Your task to perform on an android device: Clear the cart on amazon.com. Search for "macbook pro 13 inch" on amazon.com, select the first entry, add it to the cart, then select checkout. Image 0: 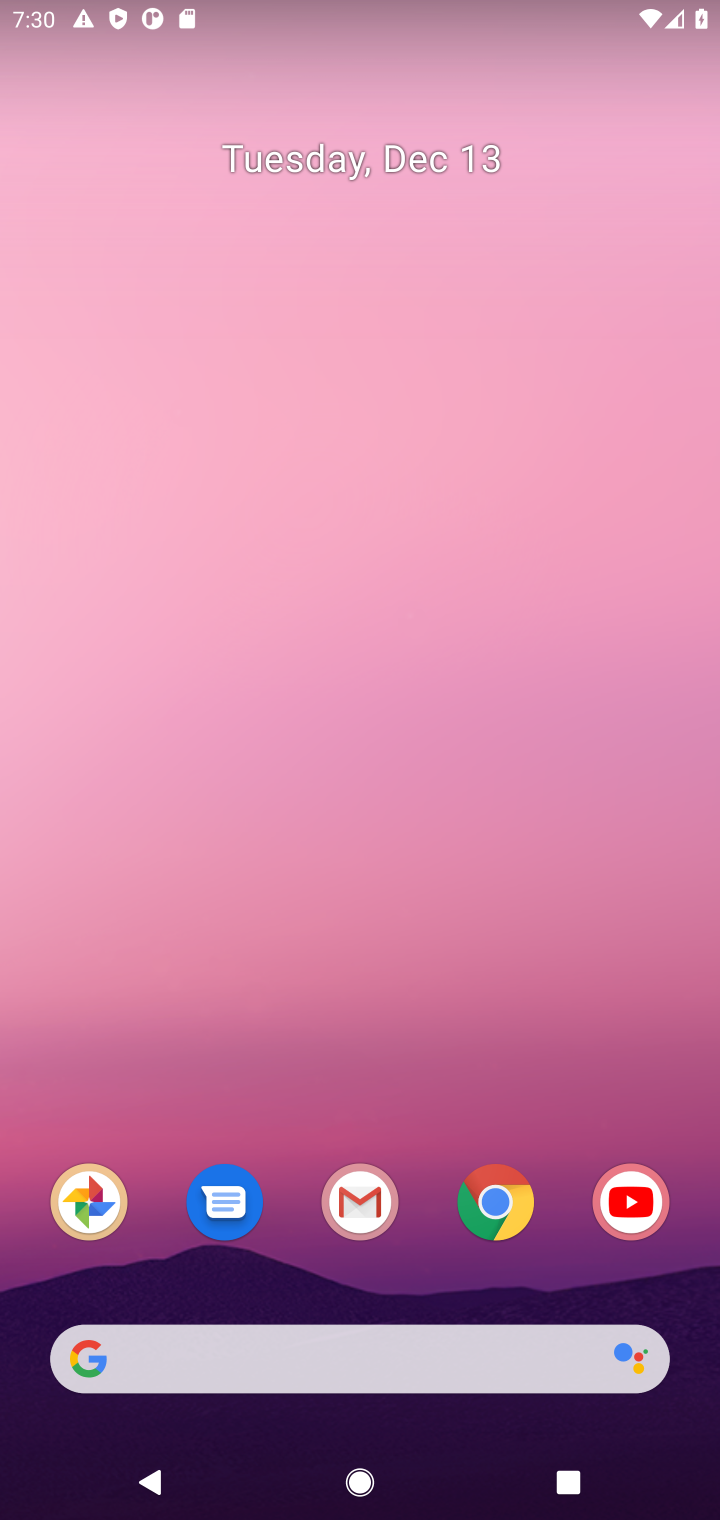
Step 0: click (501, 1217)
Your task to perform on an android device: Clear the cart on amazon.com. Search for "macbook pro 13 inch" on amazon.com, select the first entry, add it to the cart, then select checkout. Image 1: 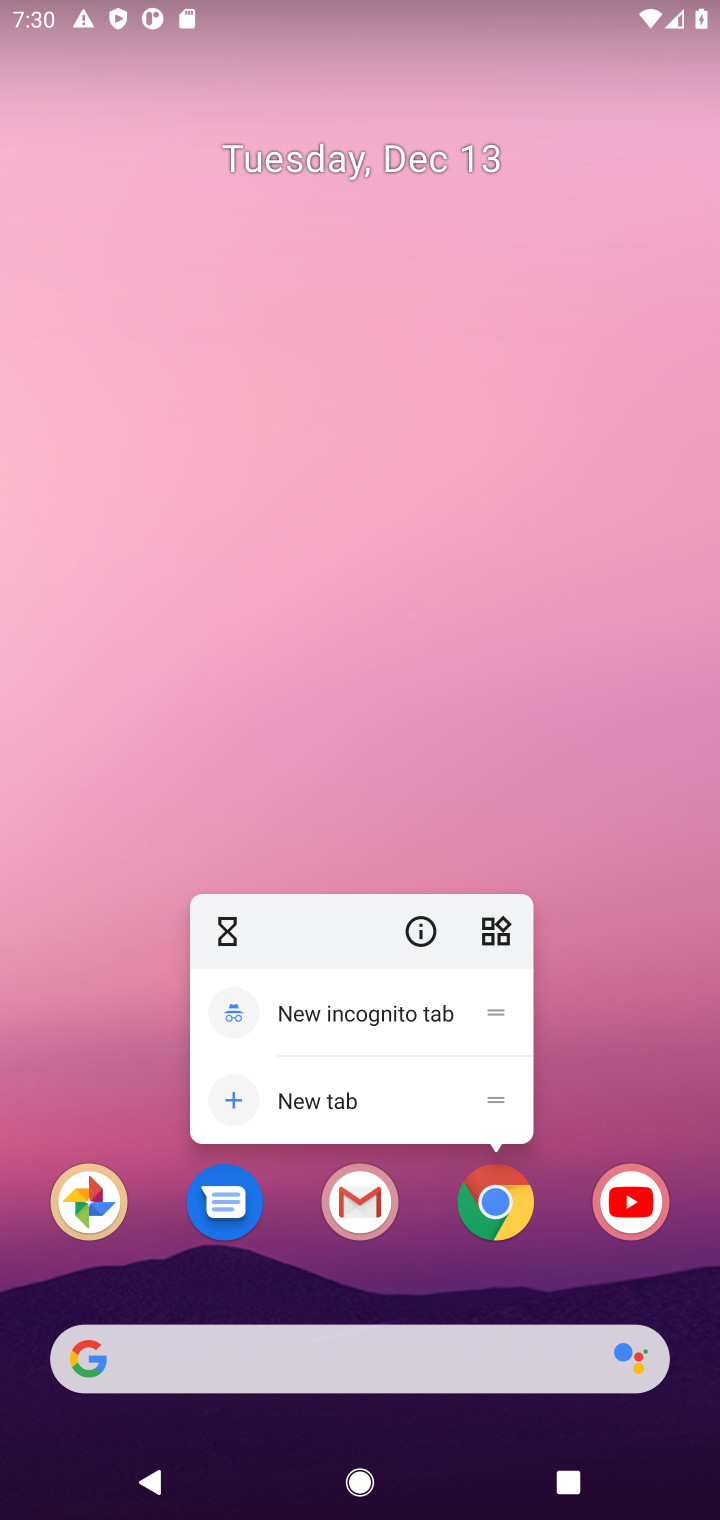
Step 1: click (497, 1200)
Your task to perform on an android device: Clear the cart on amazon.com. Search for "macbook pro 13 inch" on amazon.com, select the first entry, add it to the cart, then select checkout. Image 2: 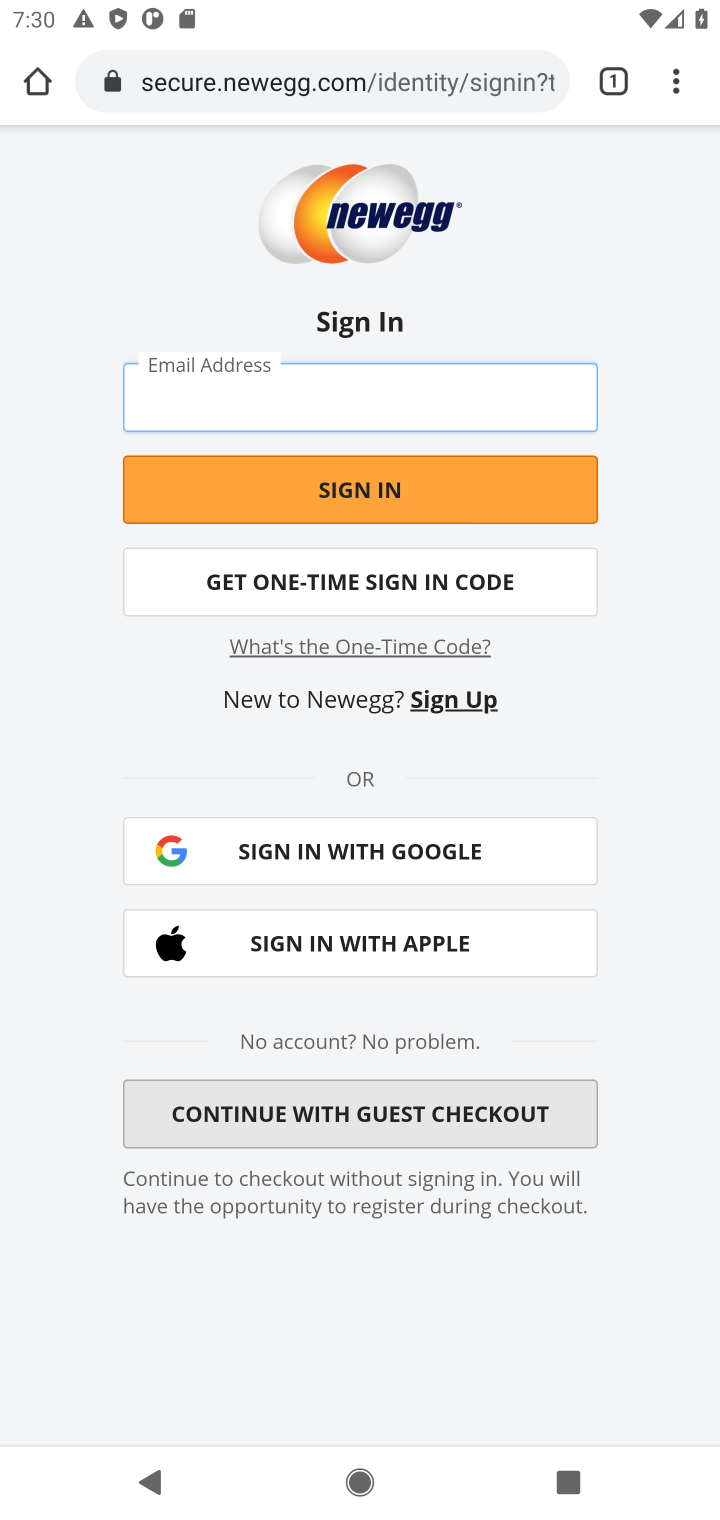
Step 2: click (288, 82)
Your task to perform on an android device: Clear the cart on amazon.com. Search for "macbook pro 13 inch" on amazon.com, select the first entry, add it to the cart, then select checkout. Image 3: 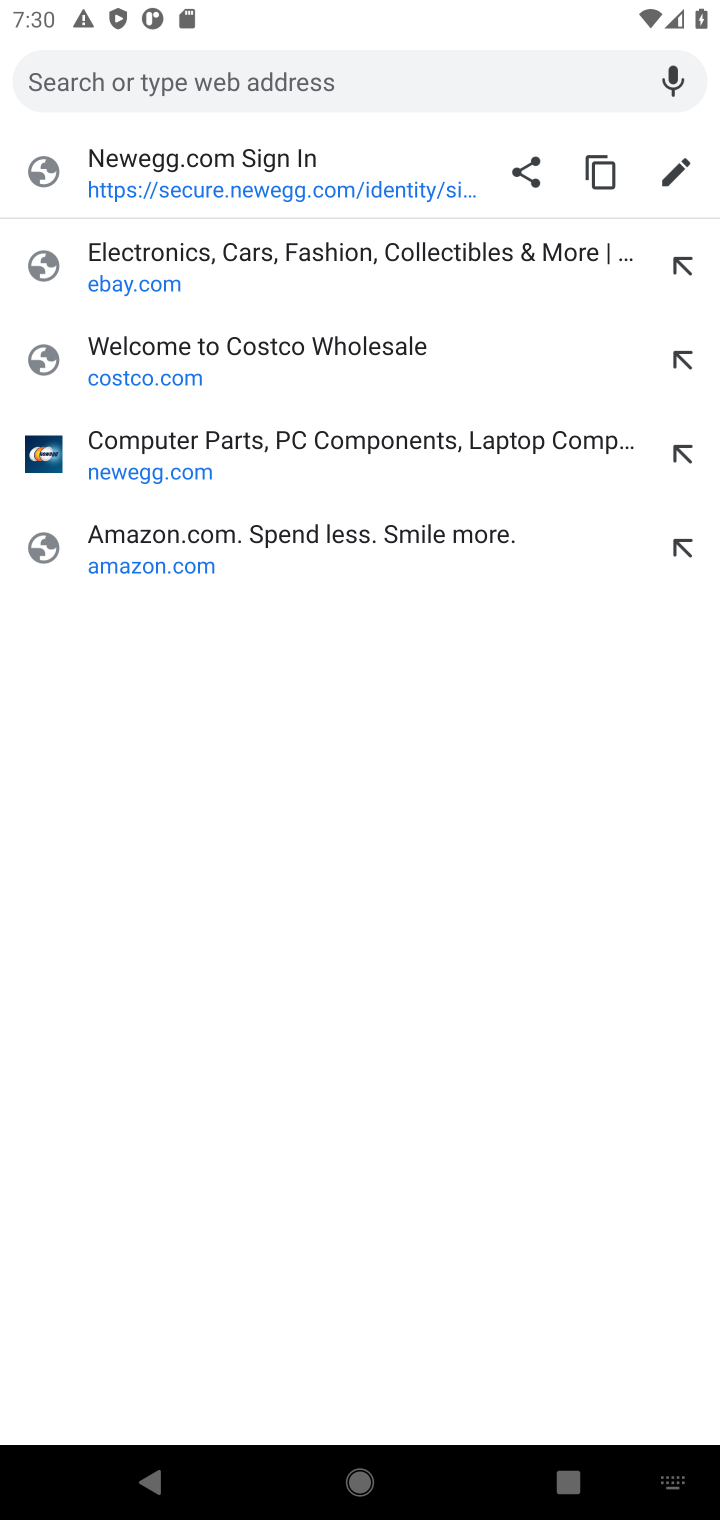
Step 3: click (122, 547)
Your task to perform on an android device: Clear the cart on amazon.com. Search for "macbook pro 13 inch" on amazon.com, select the first entry, add it to the cart, then select checkout. Image 4: 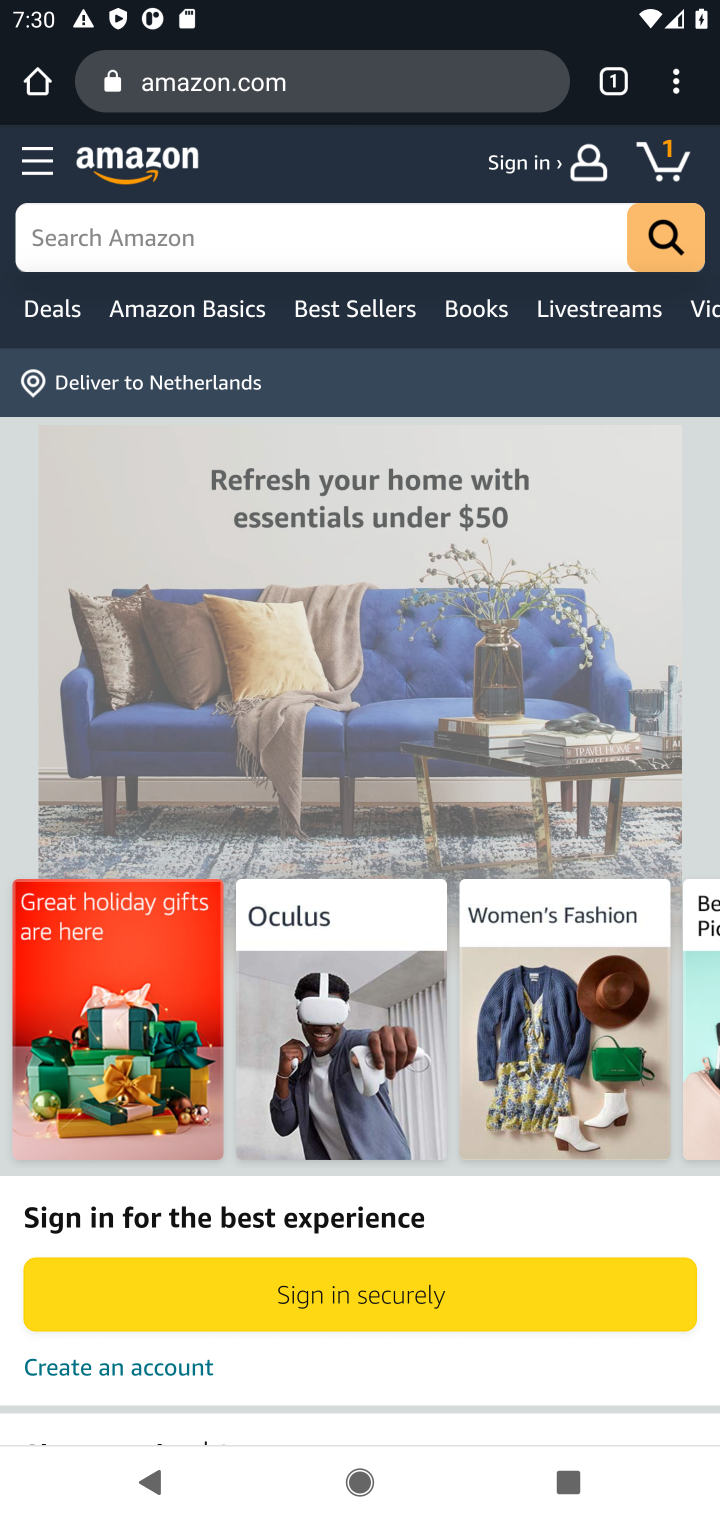
Step 4: click (665, 174)
Your task to perform on an android device: Clear the cart on amazon.com. Search for "macbook pro 13 inch" on amazon.com, select the first entry, add it to the cart, then select checkout. Image 5: 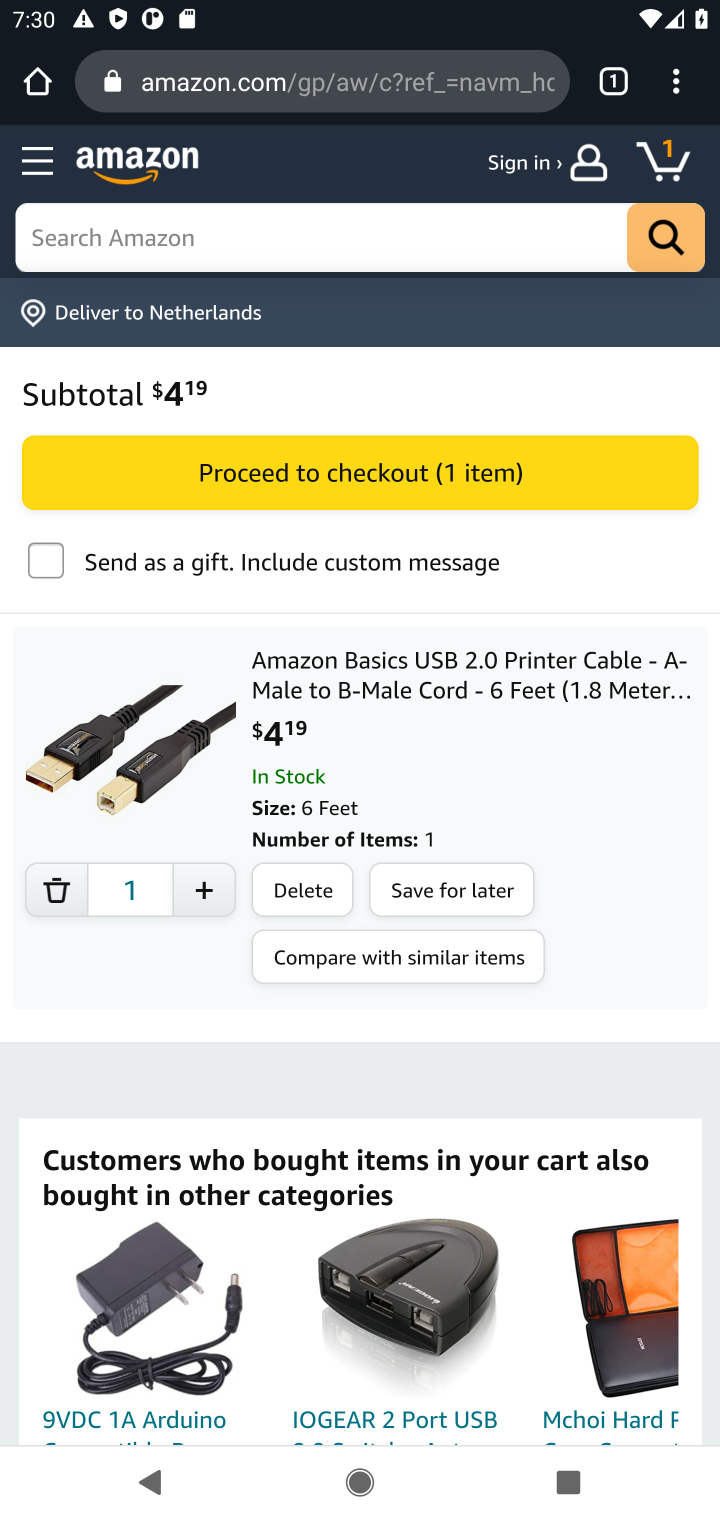
Step 5: click (304, 892)
Your task to perform on an android device: Clear the cart on amazon.com. Search for "macbook pro 13 inch" on amazon.com, select the first entry, add it to the cart, then select checkout. Image 6: 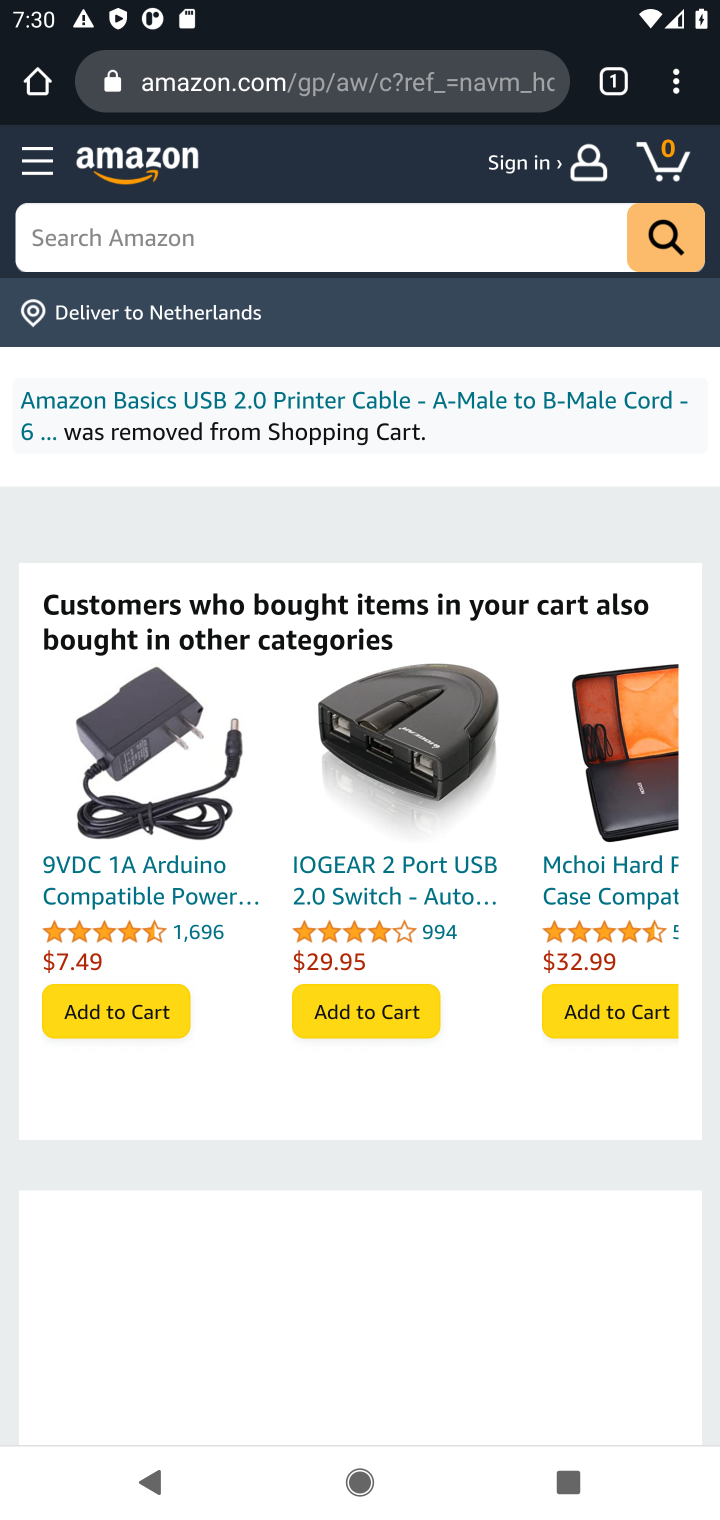
Step 6: click (136, 247)
Your task to perform on an android device: Clear the cart on amazon.com. Search for "macbook pro 13 inch" on amazon.com, select the first entry, add it to the cart, then select checkout. Image 7: 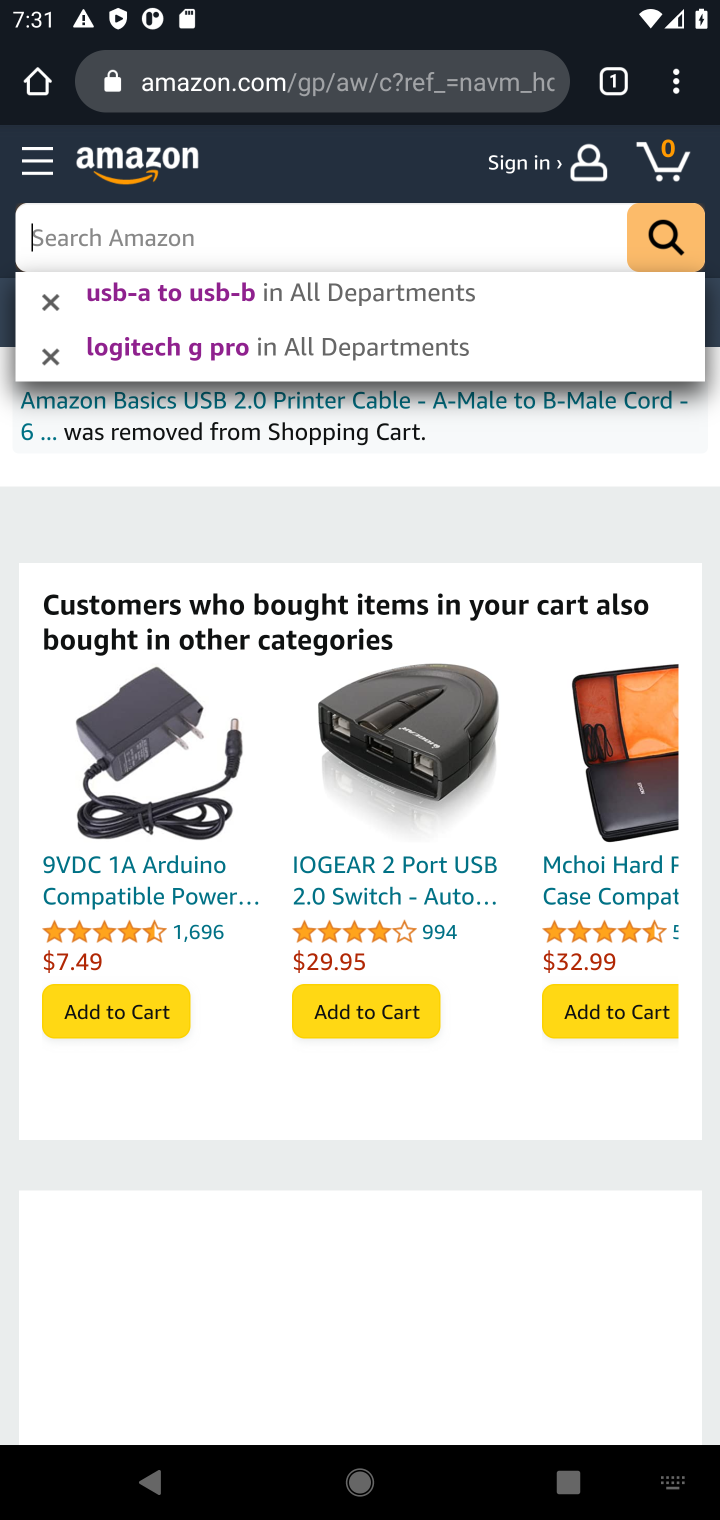
Step 7: type "macbook pro 13 inch"
Your task to perform on an android device: Clear the cart on amazon.com. Search for "macbook pro 13 inch" on amazon.com, select the first entry, add it to the cart, then select checkout. Image 8: 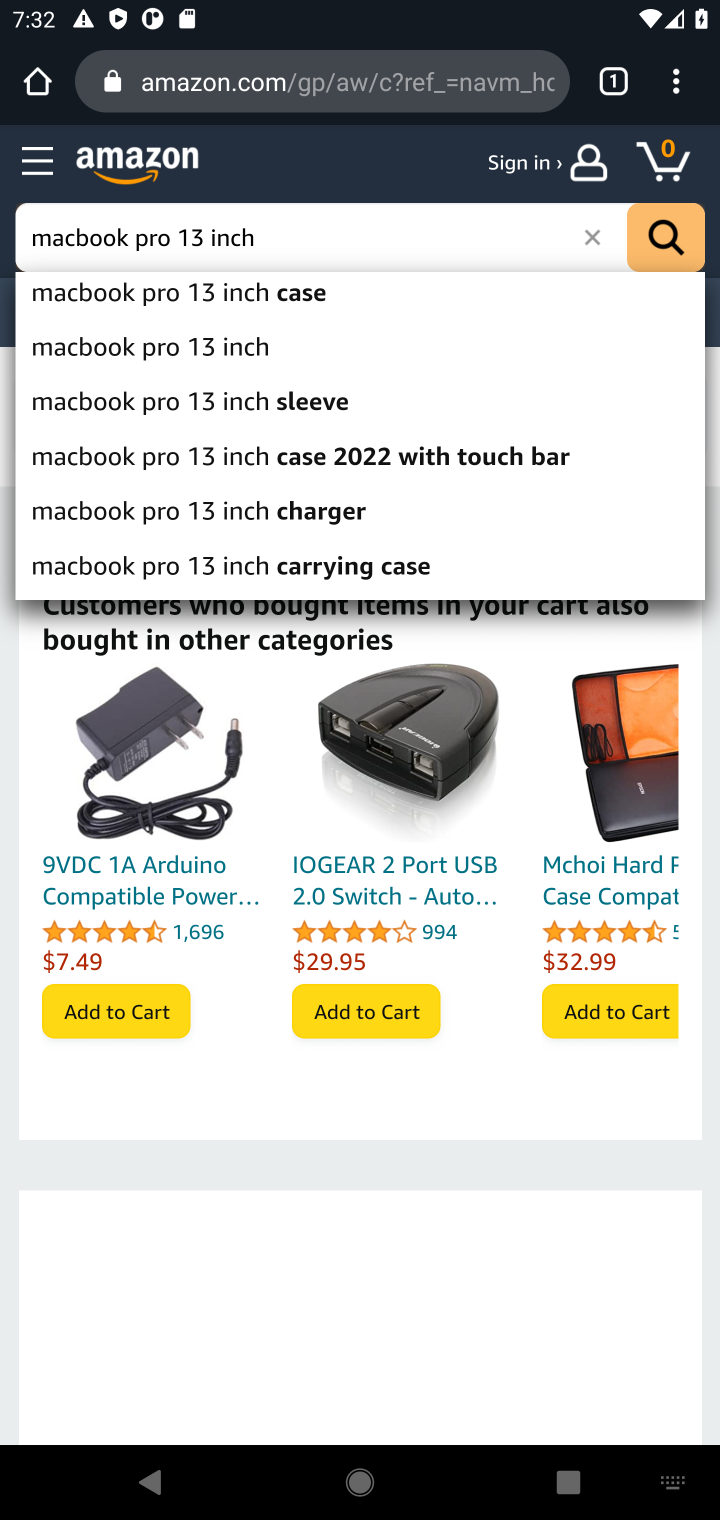
Step 8: click (155, 349)
Your task to perform on an android device: Clear the cart on amazon.com. Search for "macbook pro 13 inch" on amazon.com, select the first entry, add it to the cart, then select checkout. Image 9: 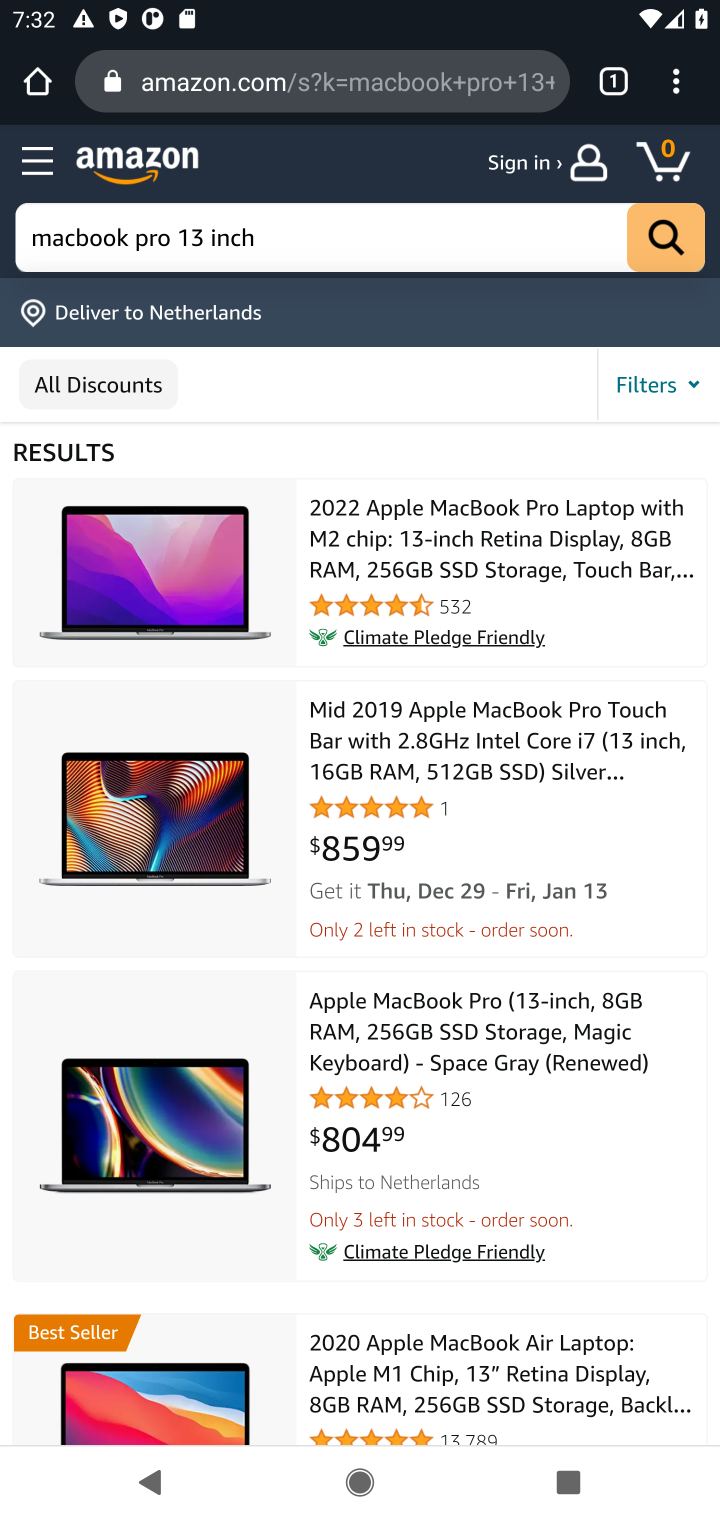
Step 9: drag from (328, 831) to (351, 517)
Your task to perform on an android device: Clear the cart on amazon.com. Search for "macbook pro 13 inch" on amazon.com, select the first entry, add it to the cart, then select checkout. Image 10: 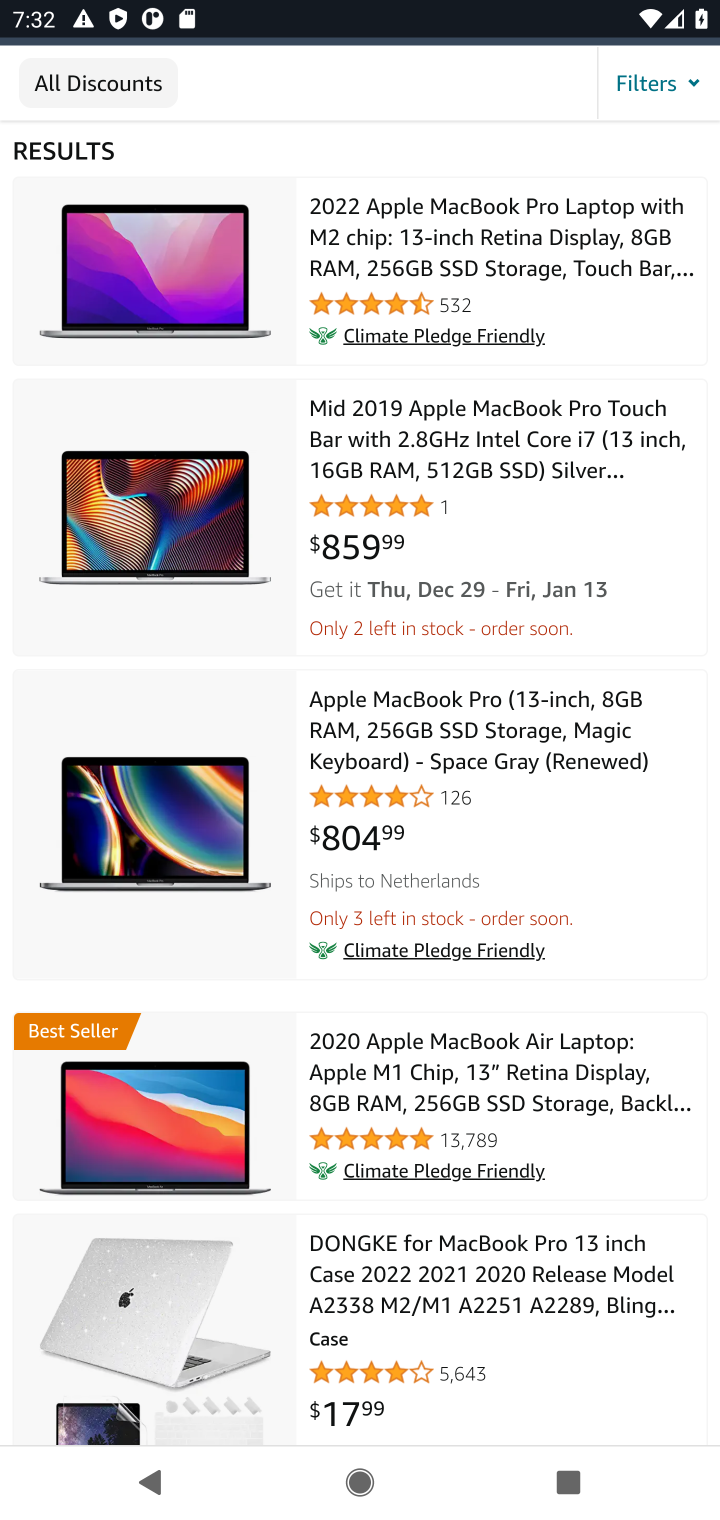
Step 10: click (429, 256)
Your task to perform on an android device: Clear the cart on amazon.com. Search for "macbook pro 13 inch" on amazon.com, select the first entry, add it to the cart, then select checkout. Image 11: 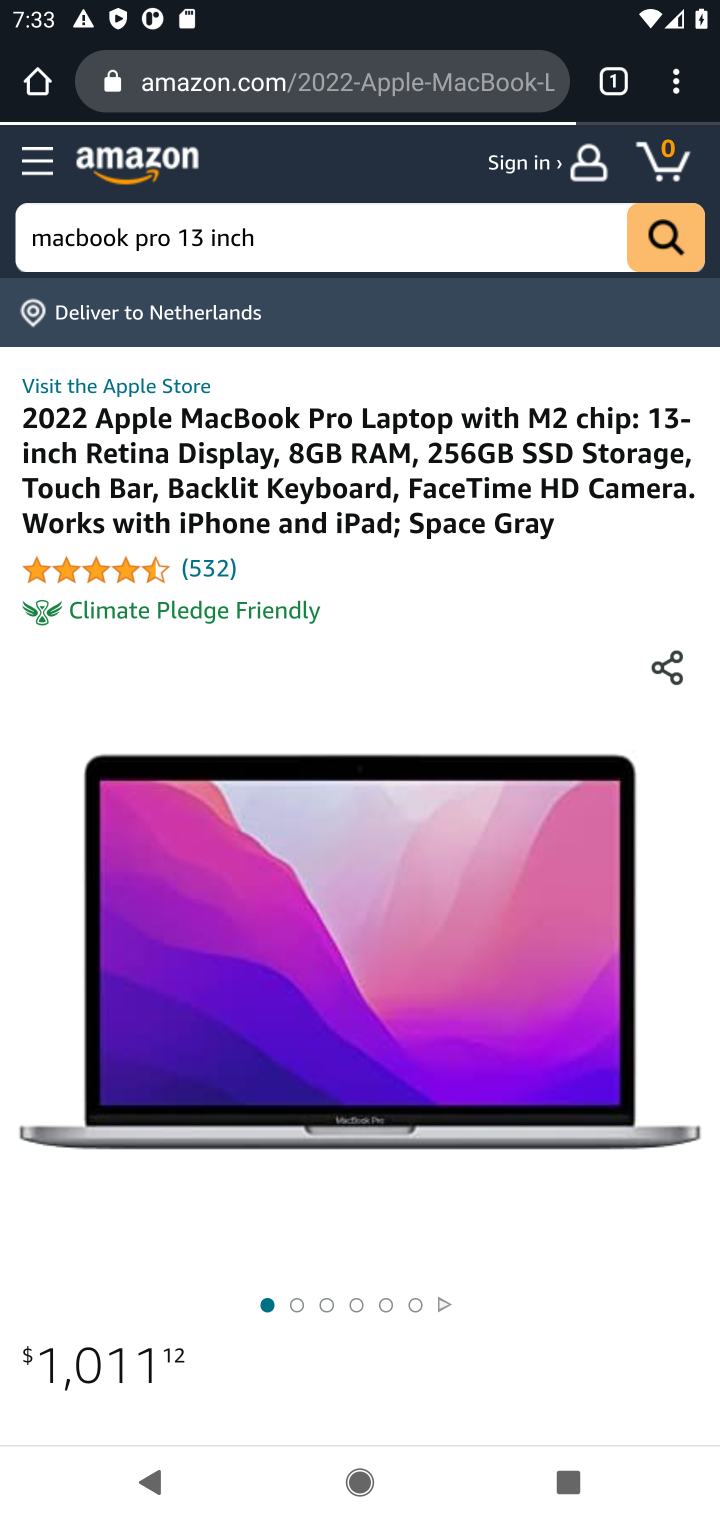
Step 11: task complete